Your task to perform on an android device: toggle show notifications on the lock screen Image 0: 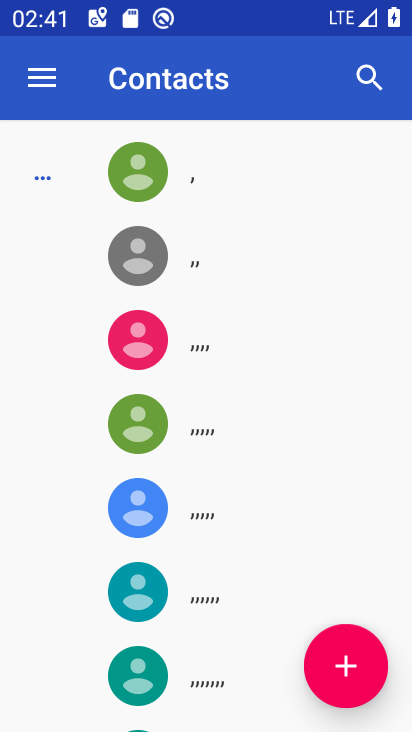
Step 0: drag from (399, 639) to (364, 228)
Your task to perform on an android device: toggle show notifications on the lock screen Image 1: 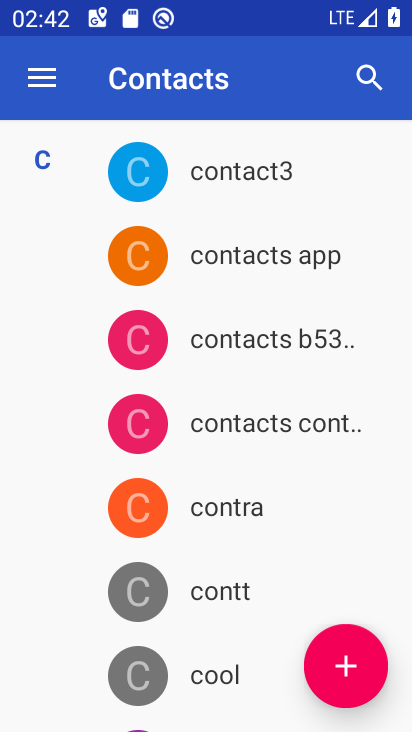
Step 1: press home button
Your task to perform on an android device: toggle show notifications on the lock screen Image 2: 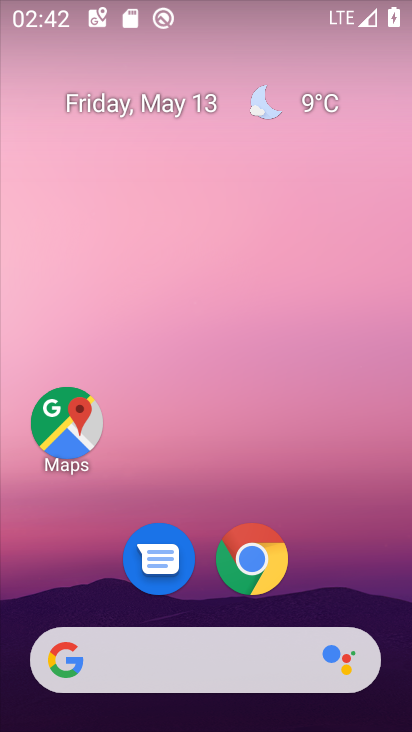
Step 2: drag from (402, 444) to (399, 313)
Your task to perform on an android device: toggle show notifications on the lock screen Image 3: 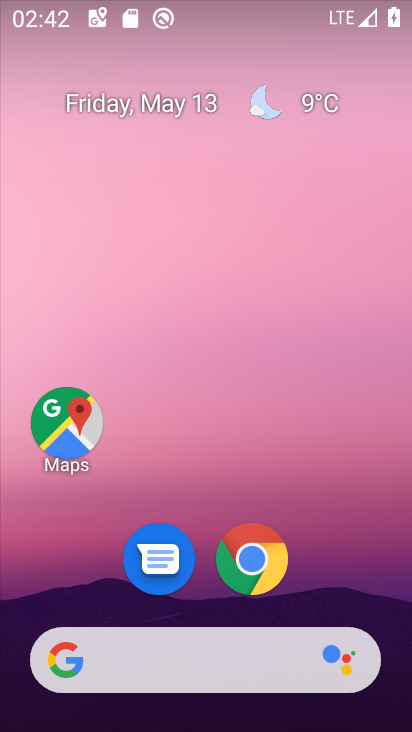
Step 3: drag from (399, 684) to (400, 97)
Your task to perform on an android device: toggle show notifications on the lock screen Image 4: 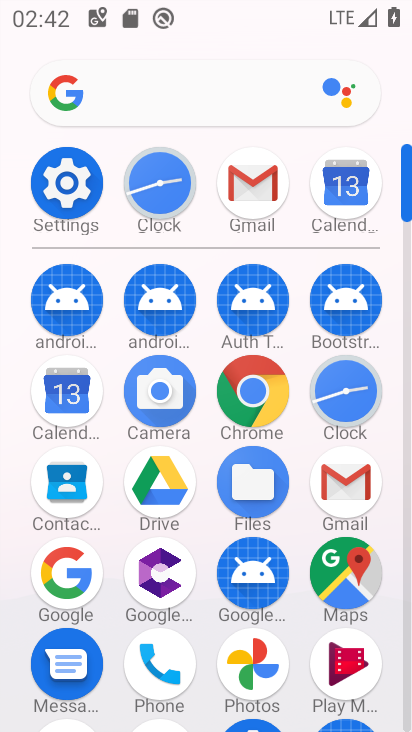
Step 4: click (76, 184)
Your task to perform on an android device: toggle show notifications on the lock screen Image 5: 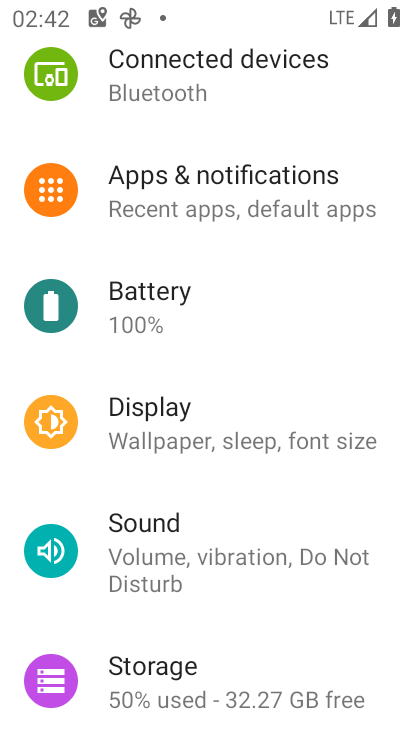
Step 5: click (171, 183)
Your task to perform on an android device: toggle show notifications on the lock screen Image 6: 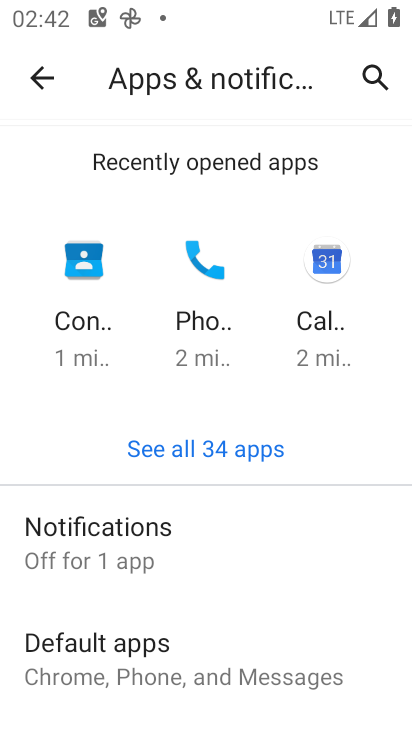
Step 6: click (190, 193)
Your task to perform on an android device: toggle show notifications on the lock screen Image 7: 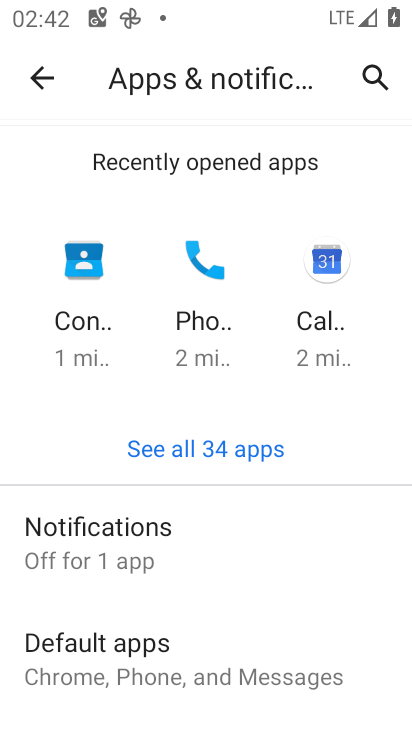
Step 7: click (90, 536)
Your task to perform on an android device: toggle show notifications on the lock screen Image 8: 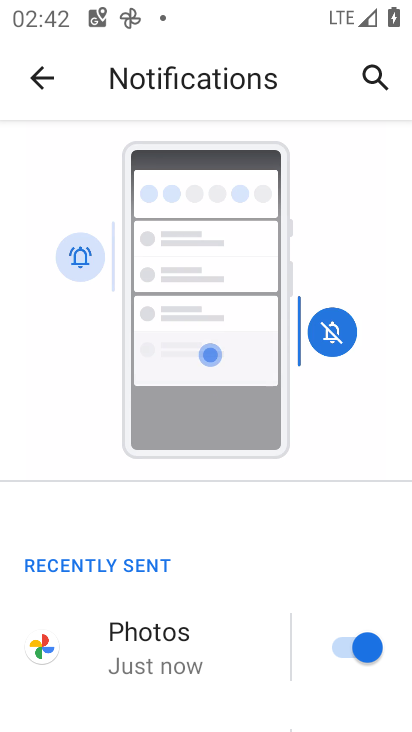
Step 8: drag from (247, 663) to (249, 353)
Your task to perform on an android device: toggle show notifications on the lock screen Image 9: 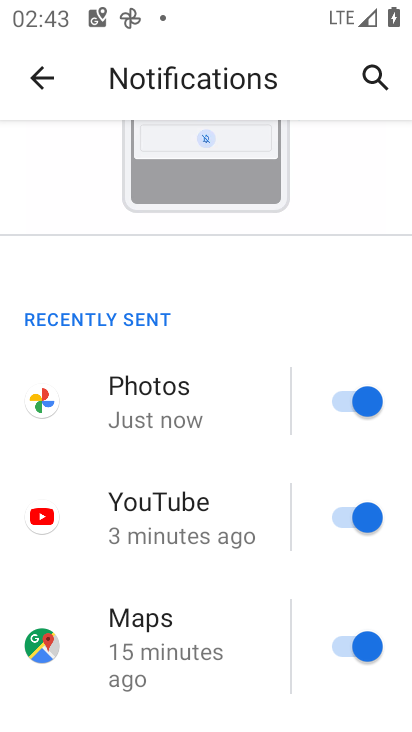
Step 9: drag from (284, 692) to (262, 294)
Your task to perform on an android device: toggle show notifications on the lock screen Image 10: 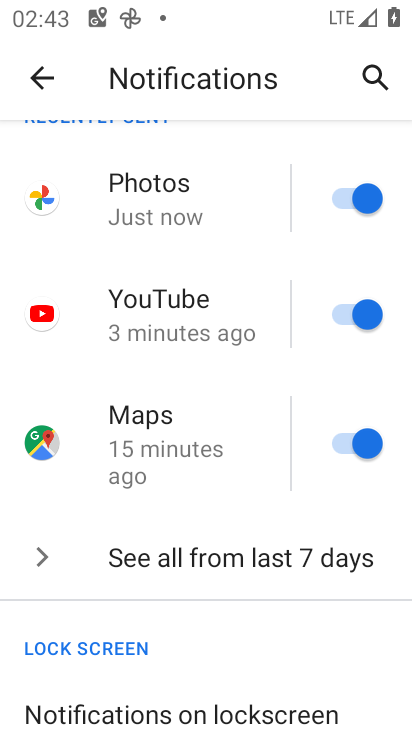
Step 10: drag from (249, 669) to (285, 411)
Your task to perform on an android device: toggle show notifications on the lock screen Image 11: 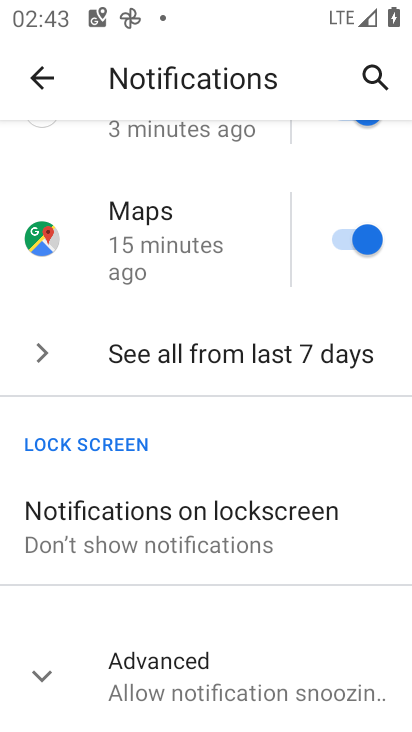
Step 11: click (98, 467)
Your task to perform on an android device: toggle show notifications on the lock screen Image 12: 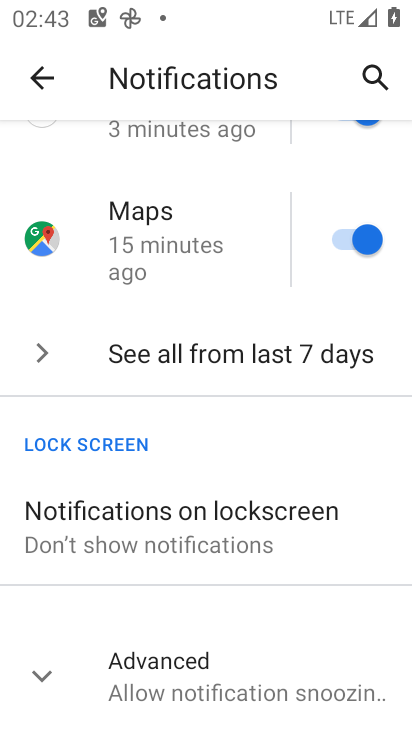
Step 12: click (115, 452)
Your task to perform on an android device: toggle show notifications on the lock screen Image 13: 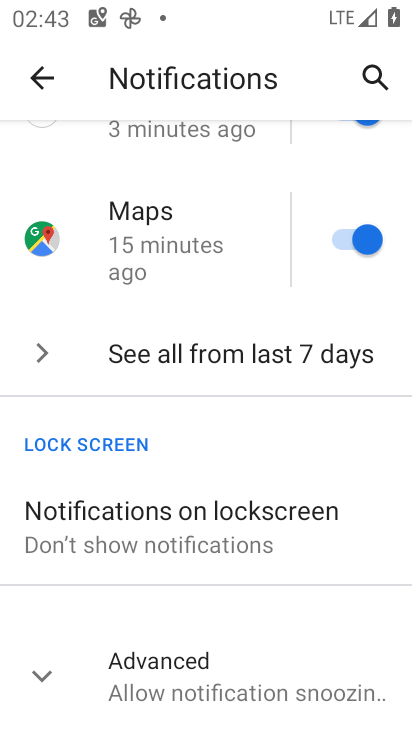
Step 13: click (99, 520)
Your task to perform on an android device: toggle show notifications on the lock screen Image 14: 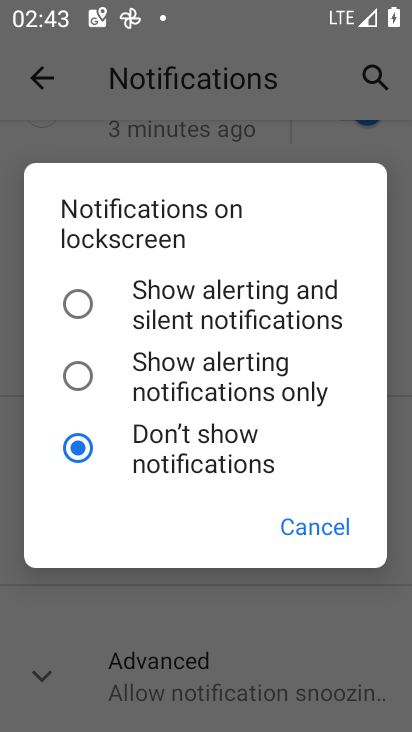
Step 14: click (84, 375)
Your task to perform on an android device: toggle show notifications on the lock screen Image 15: 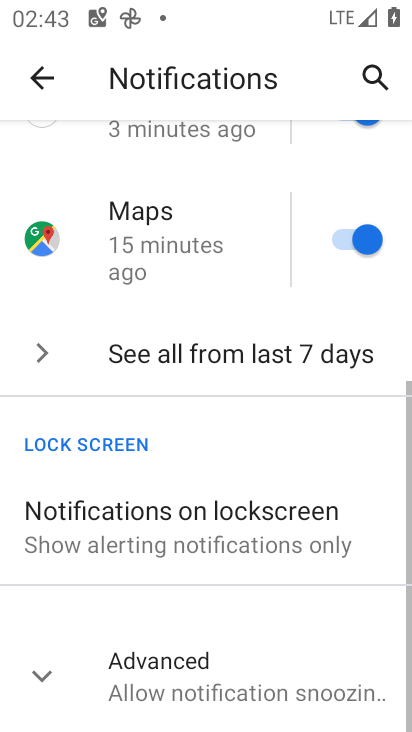
Step 15: task complete